Your task to perform on an android device: open a bookmark in the chrome app Image 0: 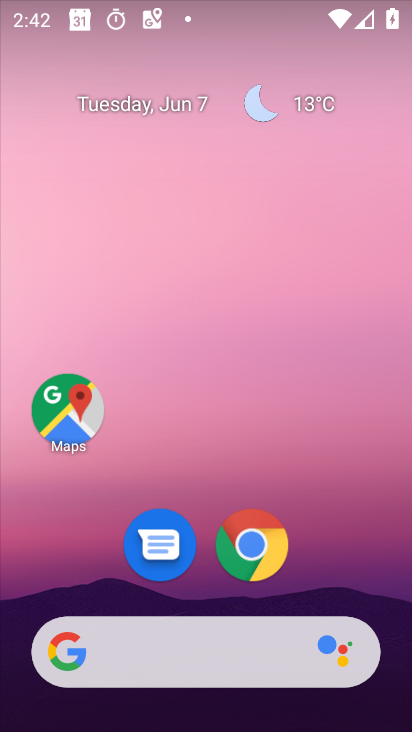
Step 0: click (262, 557)
Your task to perform on an android device: open a bookmark in the chrome app Image 1: 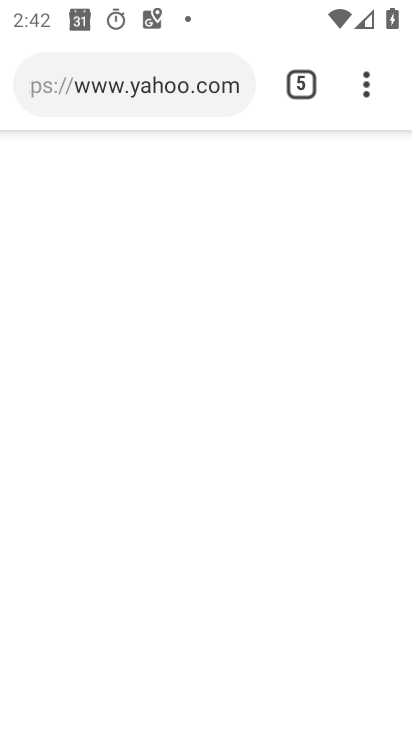
Step 1: click (361, 85)
Your task to perform on an android device: open a bookmark in the chrome app Image 2: 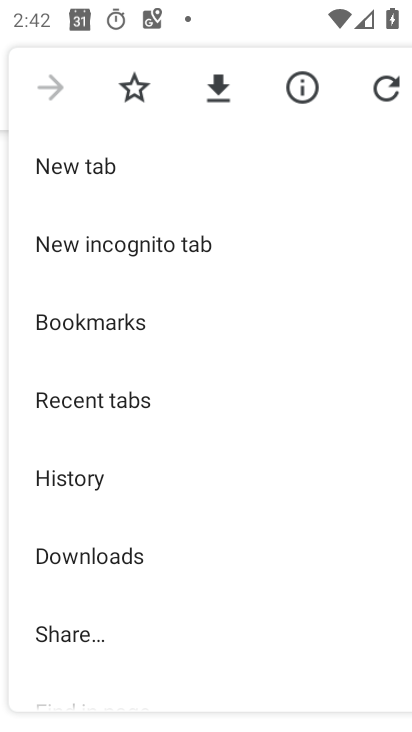
Step 2: click (150, 333)
Your task to perform on an android device: open a bookmark in the chrome app Image 3: 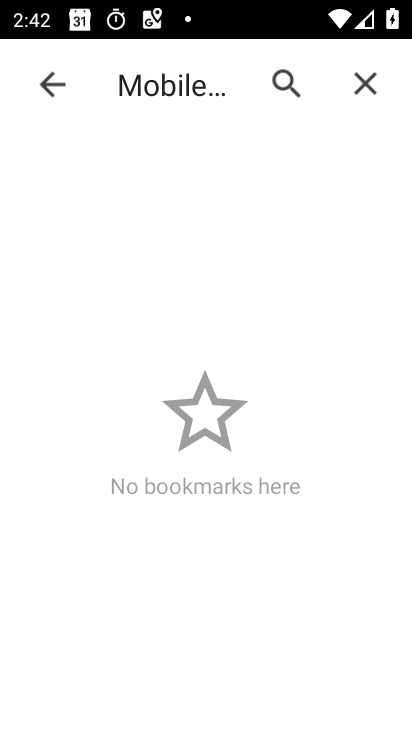
Step 3: task complete